Your task to perform on an android device: turn off data saver in the chrome app Image 0: 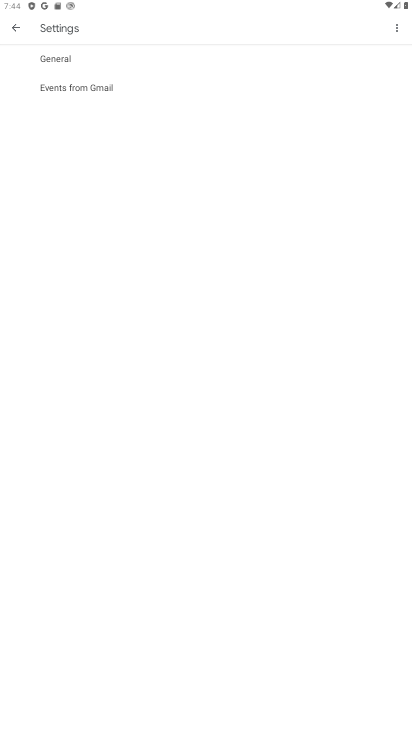
Step 0: press home button
Your task to perform on an android device: turn off data saver in the chrome app Image 1: 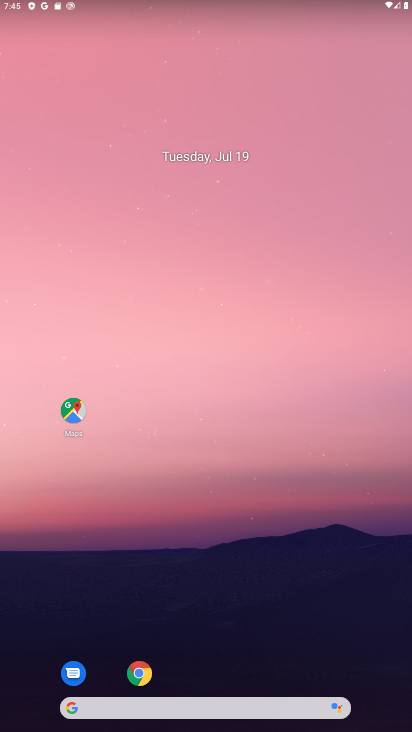
Step 1: click (146, 668)
Your task to perform on an android device: turn off data saver in the chrome app Image 2: 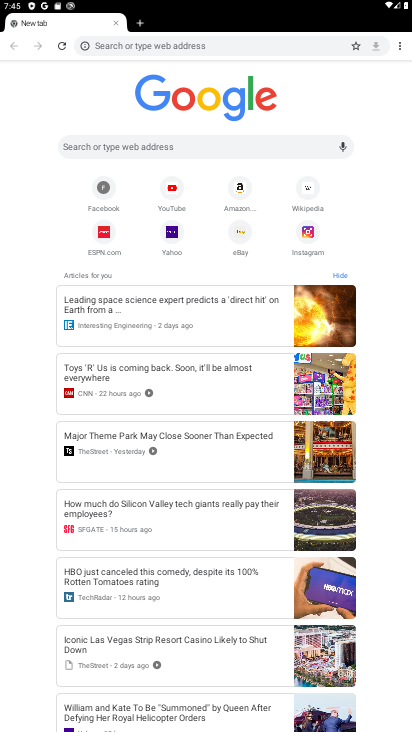
Step 2: click (396, 54)
Your task to perform on an android device: turn off data saver in the chrome app Image 3: 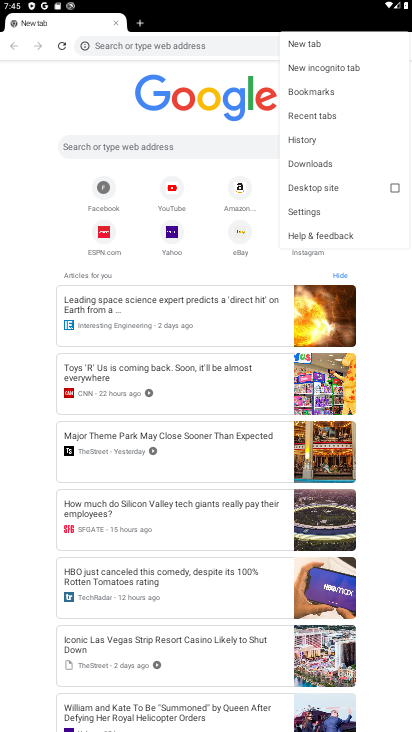
Step 3: click (317, 209)
Your task to perform on an android device: turn off data saver in the chrome app Image 4: 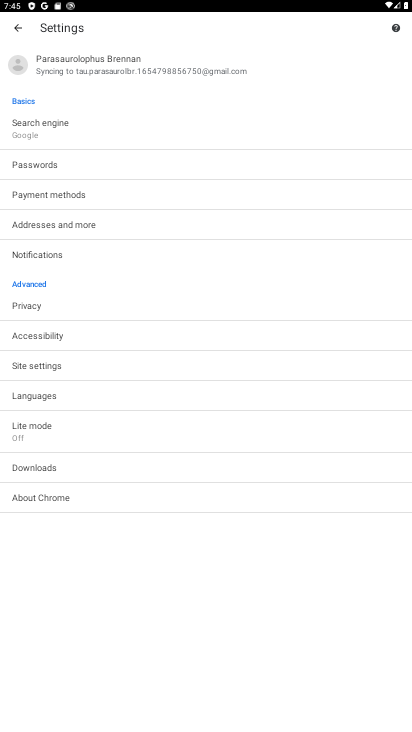
Step 4: click (95, 365)
Your task to perform on an android device: turn off data saver in the chrome app Image 5: 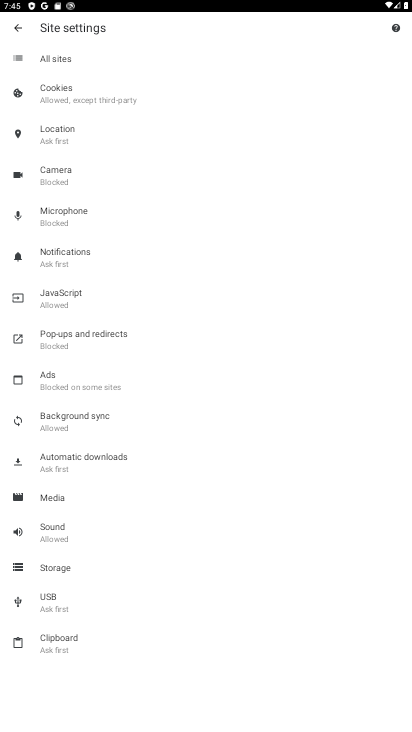
Step 5: click (19, 28)
Your task to perform on an android device: turn off data saver in the chrome app Image 6: 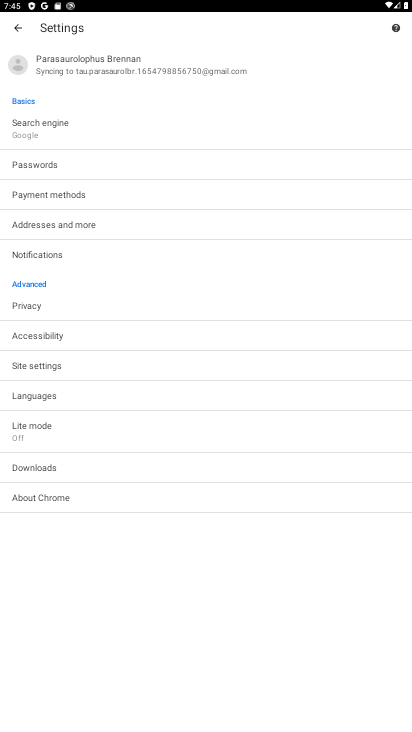
Step 6: click (119, 432)
Your task to perform on an android device: turn off data saver in the chrome app Image 7: 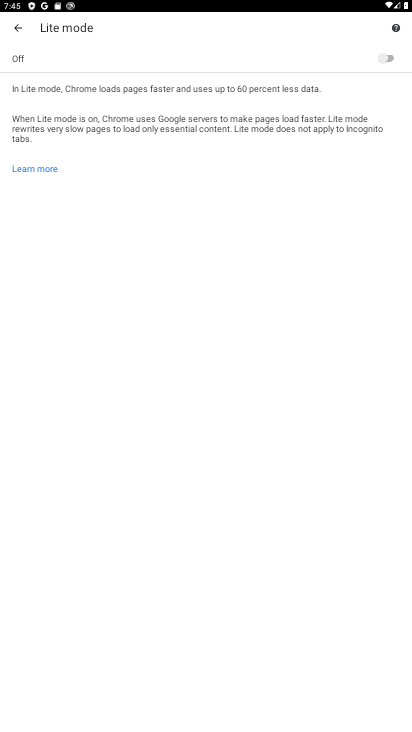
Step 7: click (375, 59)
Your task to perform on an android device: turn off data saver in the chrome app Image 8: 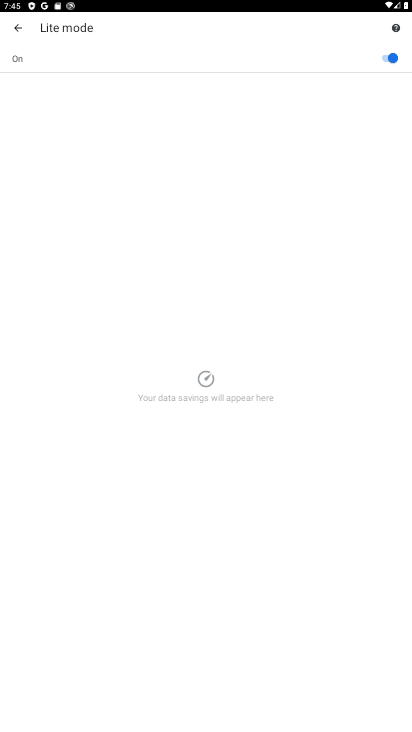
Step 8: task complete